Your task to perform on an android device: How much does a 3 bedroom apartment rent for in Miami? Image 0: 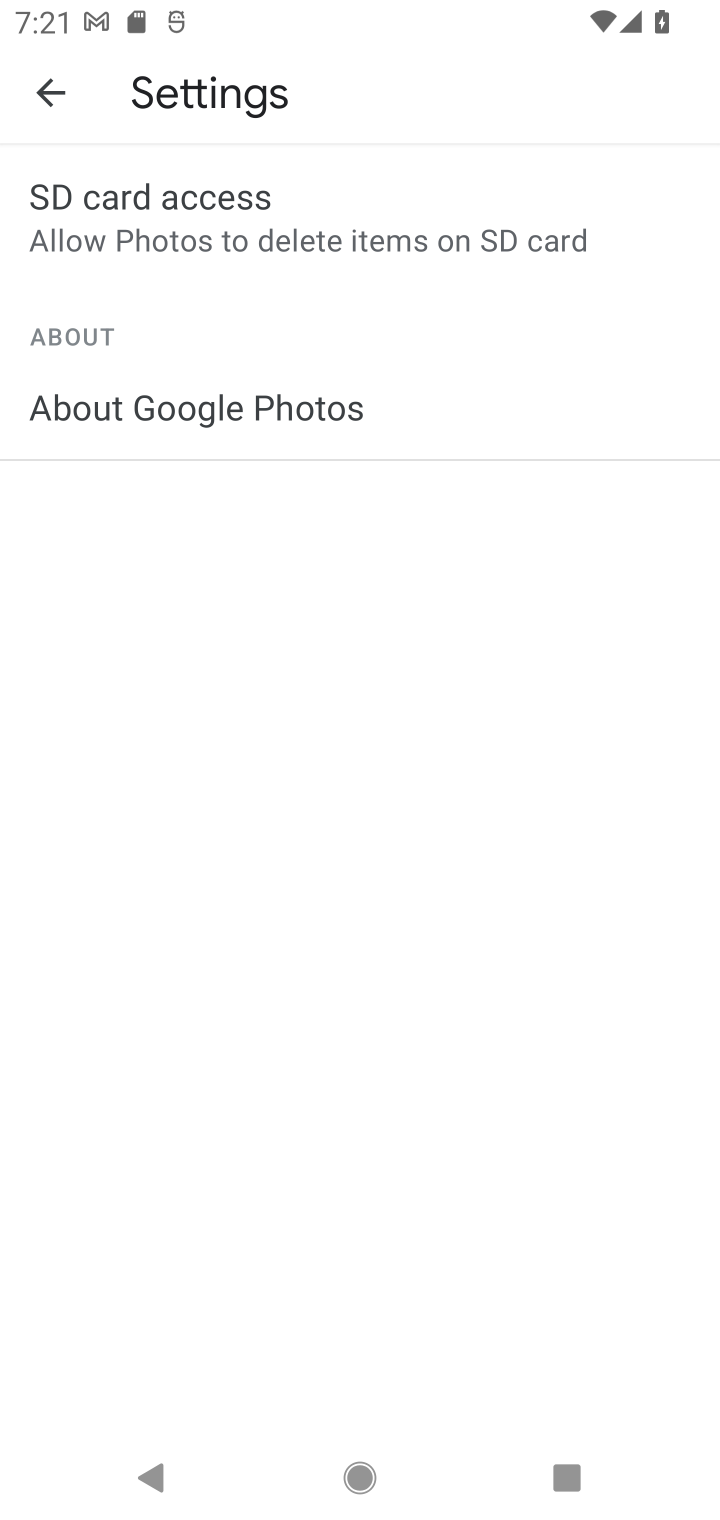
Step 0: press home button
Your task to perform on an android device: How much does a 3 bedroom apartment rent for in Miami? Image 1: 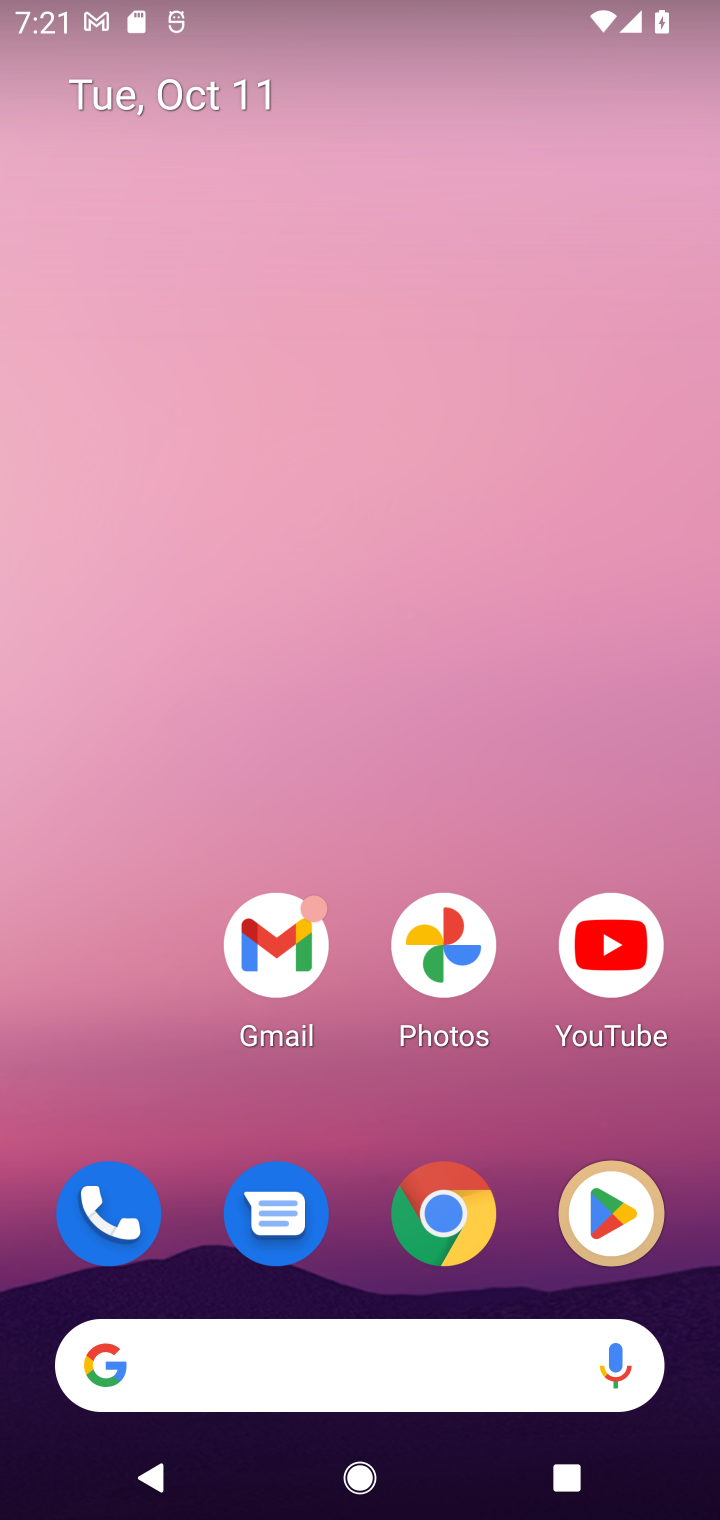
Step 1: drag from (334, 1329) to (457, 643)
Your task to perform on an android device: How much does a 3 bedroom apartment rent for in Miami? Image 2: 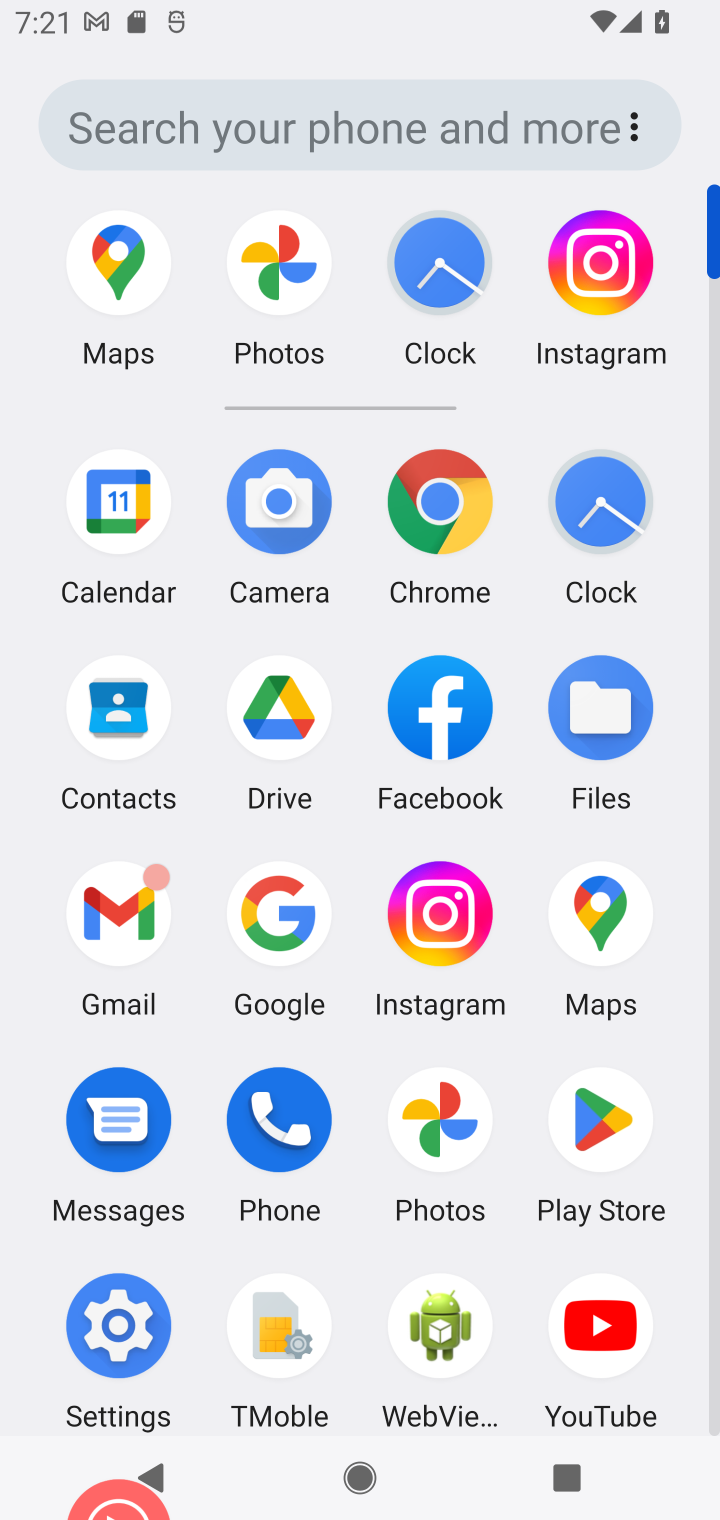
Step 2: click (303, 899)
Your task to perform on an android device: How much does a 3 bedroom apartment rent for in Miami? Image 3: 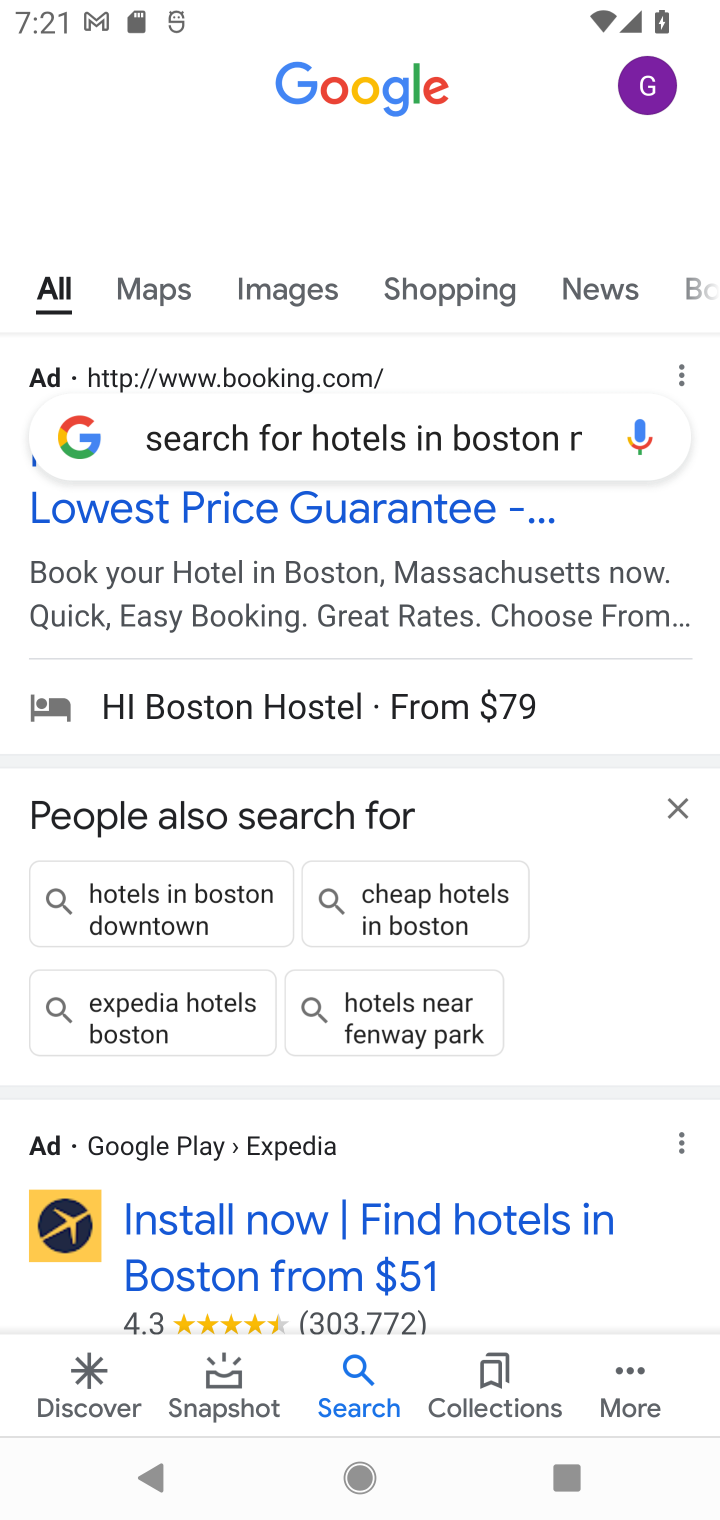
Step 3: click (339, 432)
Your task to perform on an android device: How much does a 3 bedroom apartment rent for in Miami? Image 4: 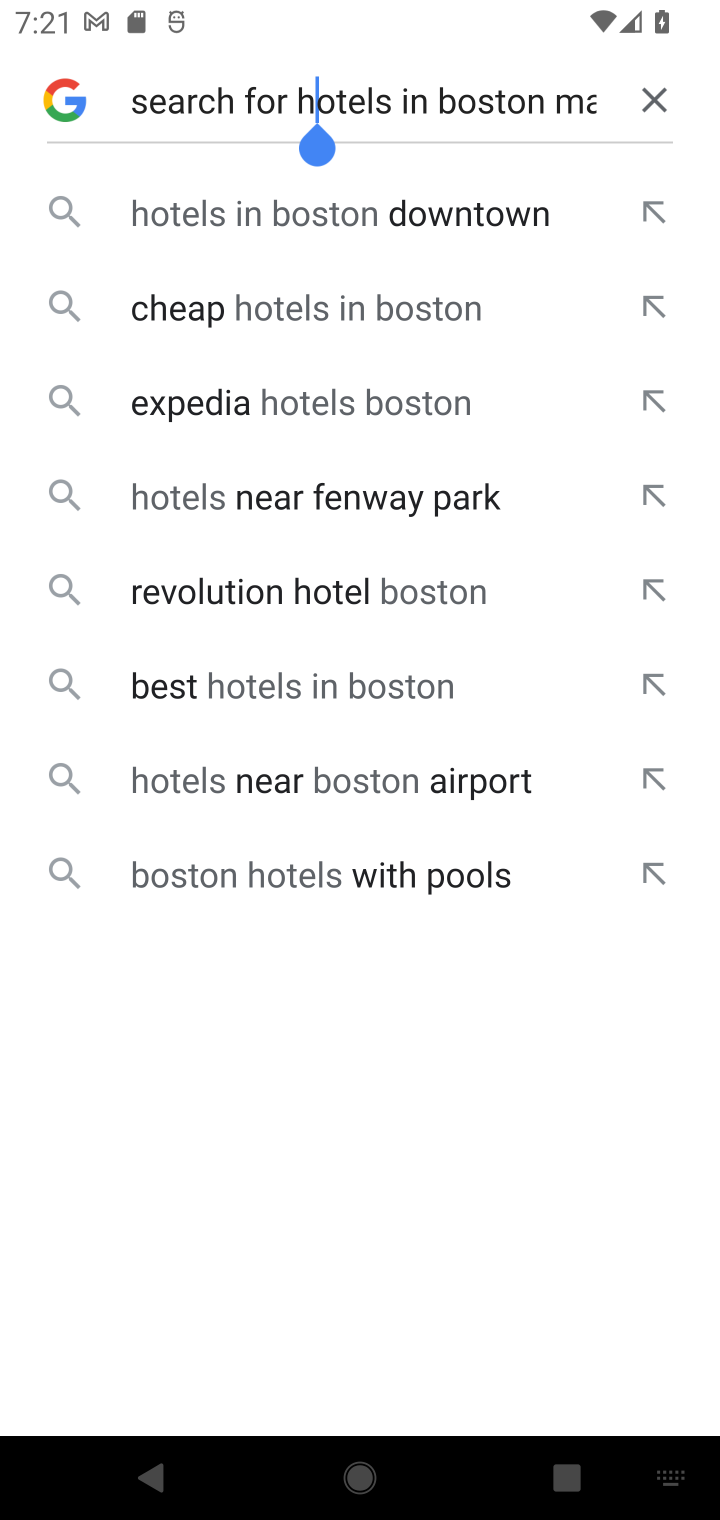
Step 4: click (655, 84)
Your task to perform on an android device: How much does a 3 bedroom apartment rent for in Miami? Image 5: 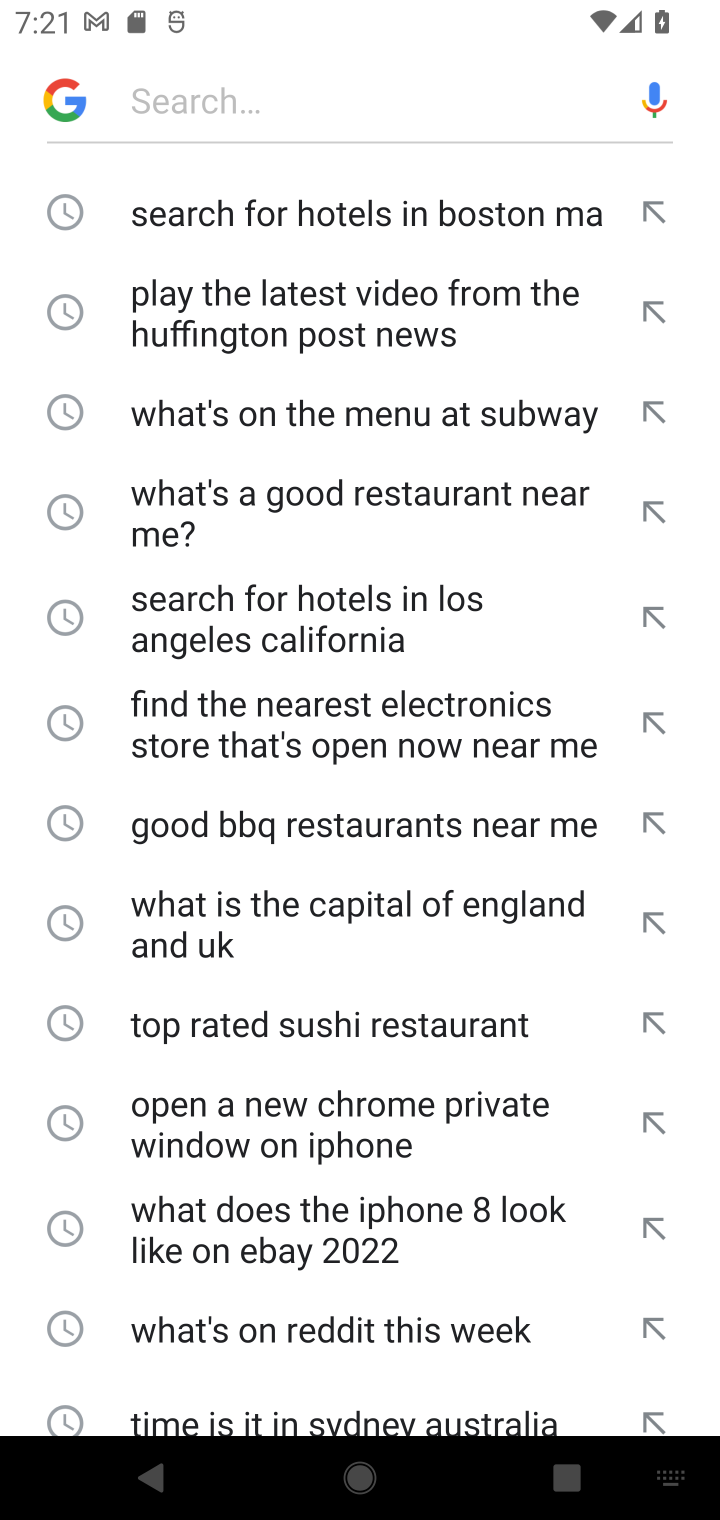
Step 5: click (222, 93)
Your task to perform on an android device: How much does a 3 bedroom apartment rent for in Miami? Image 6: 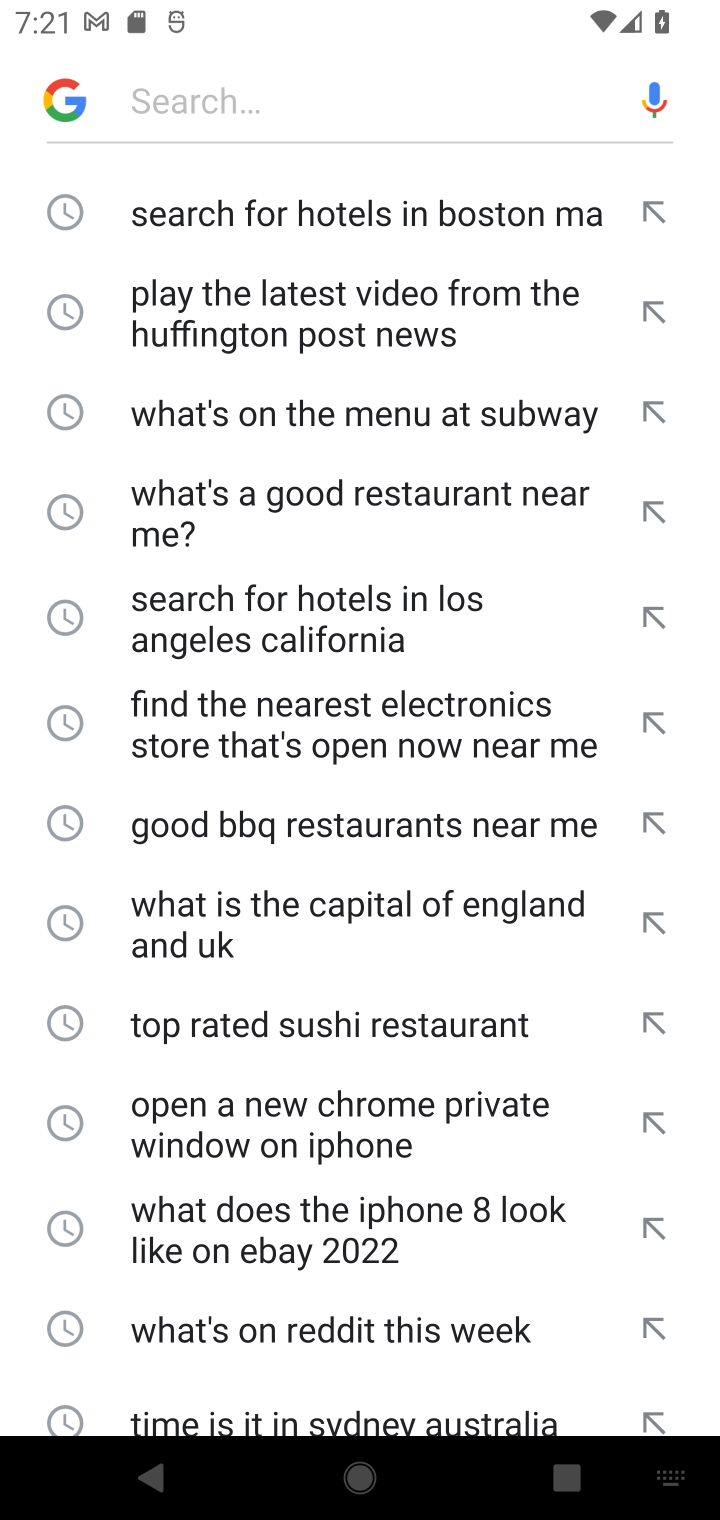
Step 6: type "How much does a 3 bedroom apartment rent for in Miami? "
Your task to perform on an android device: How much does a 3 bedroom apartment rent for in Miami? Image 7: 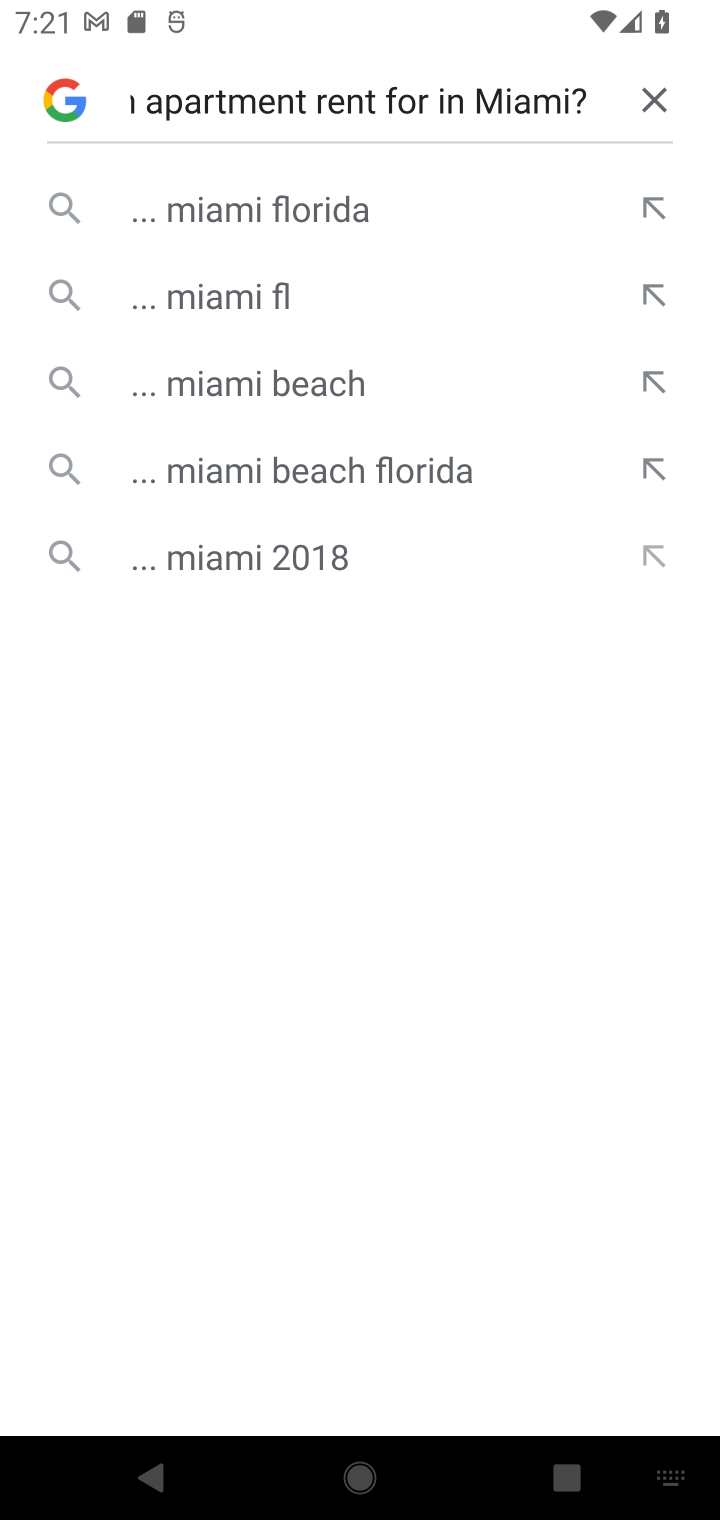
Step 7: click (308, 210)
Your task to perform on an android device: How much does a 3 bedroom apartment rent for in Miami? Image 8: 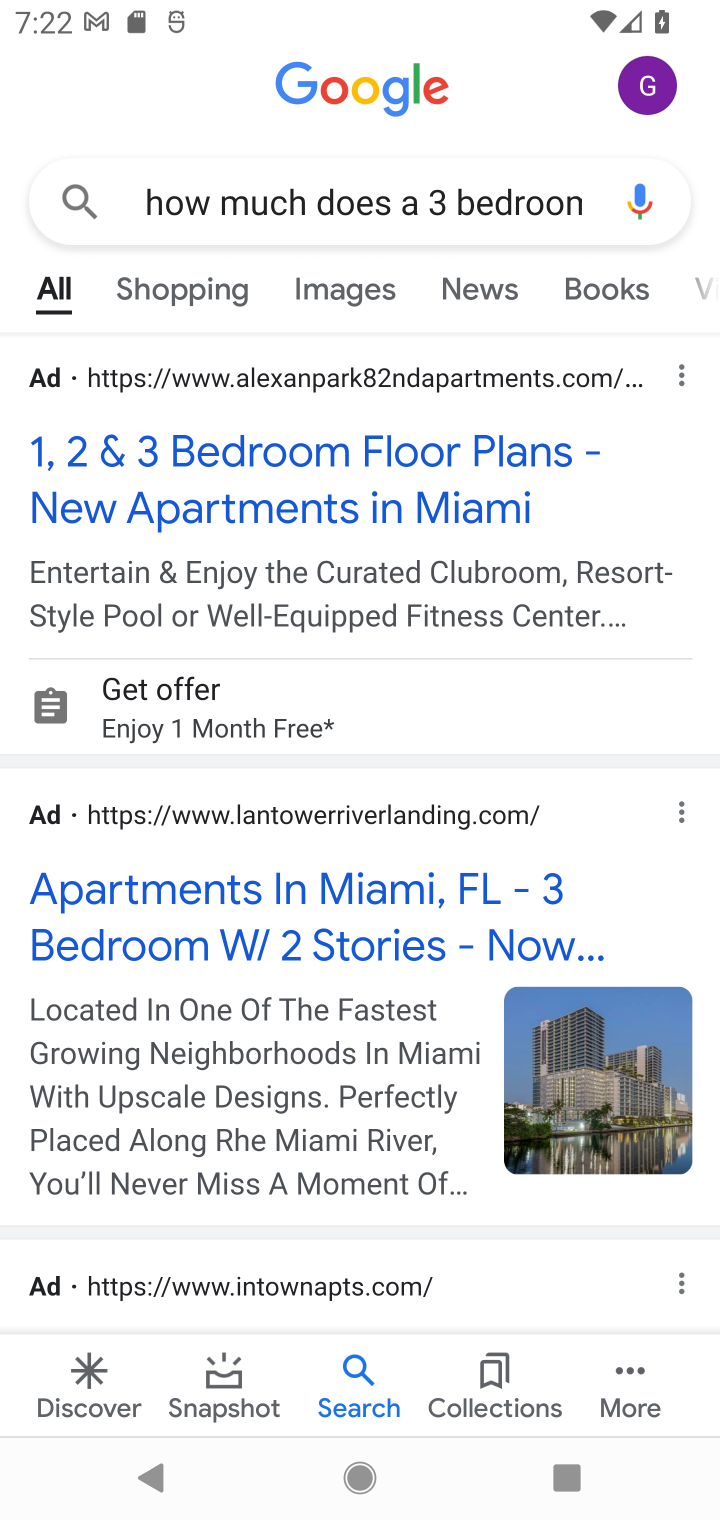
Step 8: click (313, 464)
Your task to perform on an android device: How much does a 3 bedroom apartment rent for in Miami? Image 9: 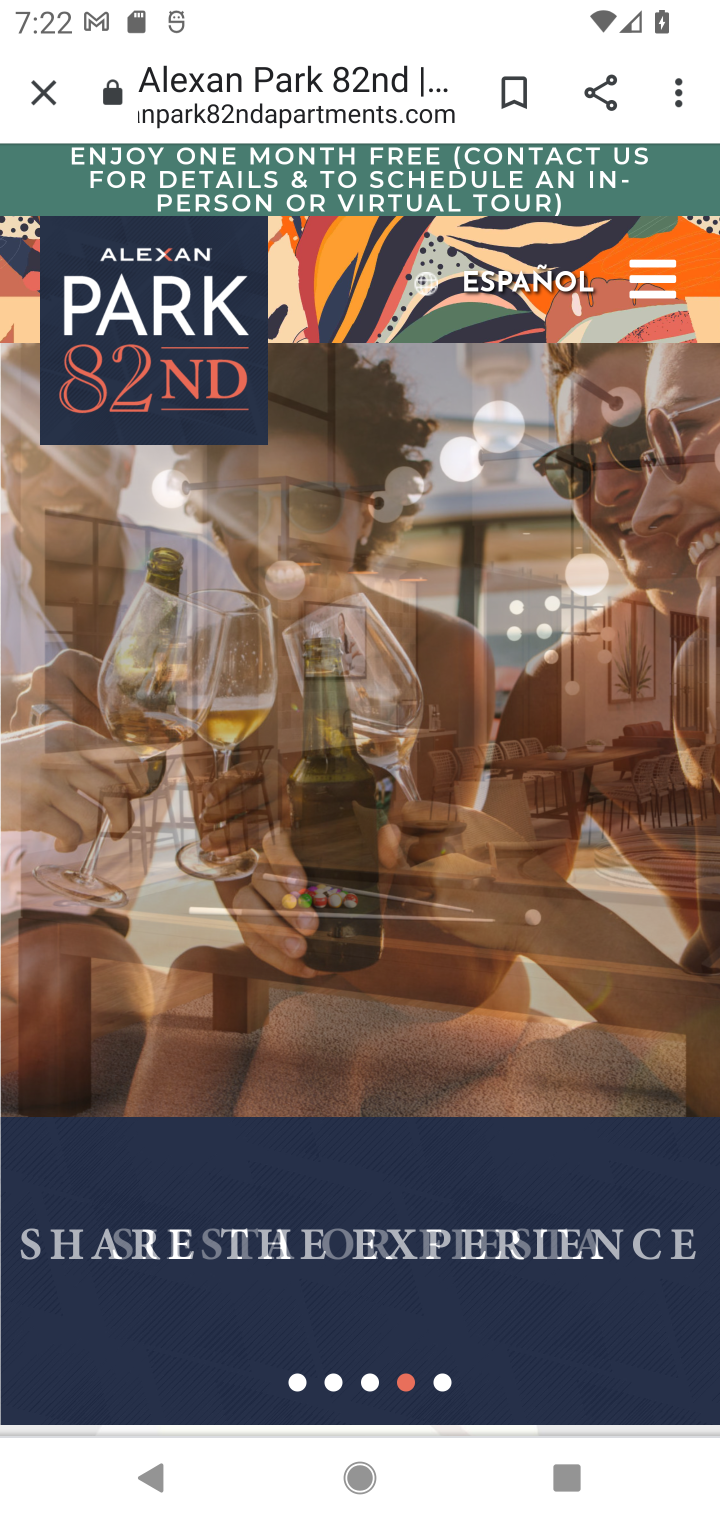
Step 9: drag from (471, 1189) to (437, 238)
Your task to perform on an android device: How much does a 3 bedroom apartment rent for in Miami? Image 10: 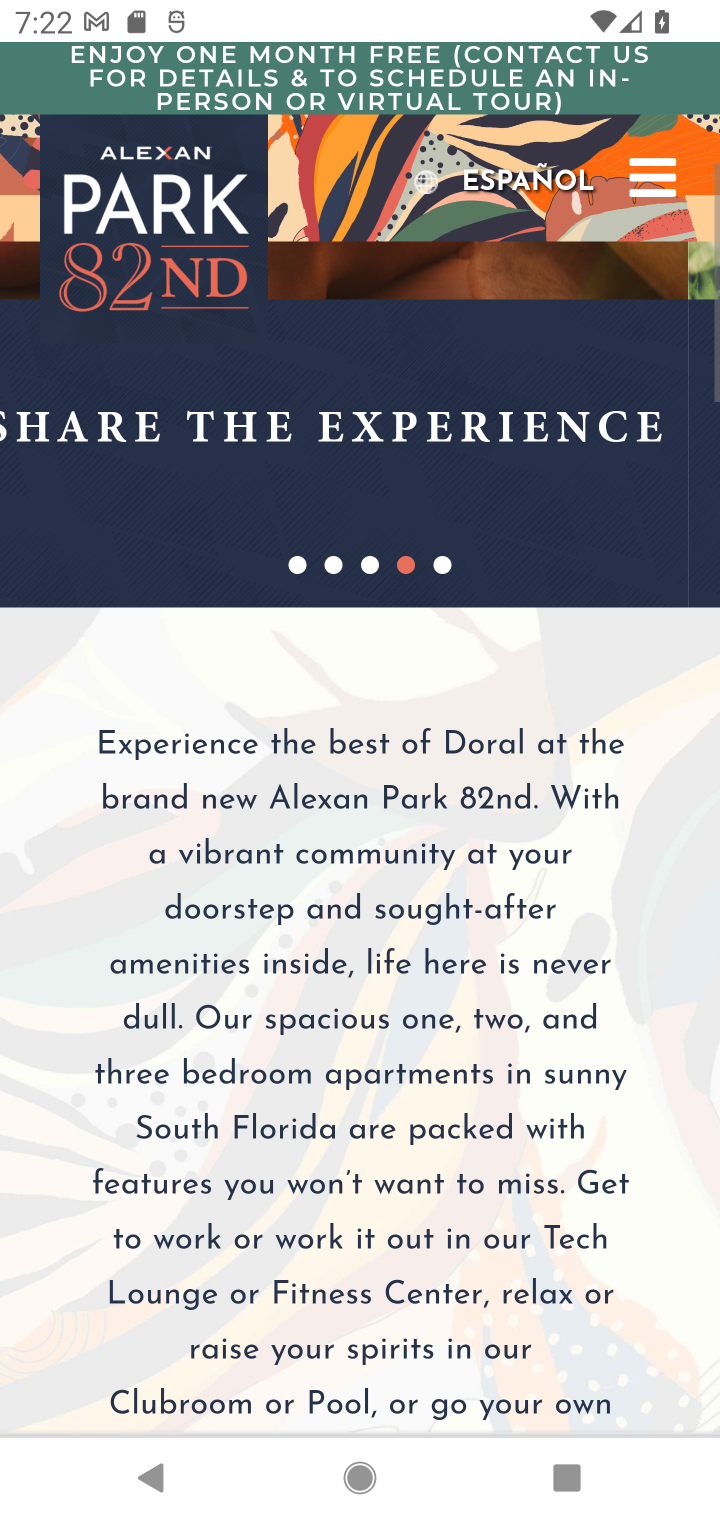
Step 10: drag from (517, 1287) to (4, 878)
Your task to perform on an android device: How much does a 3 bedroom apartment rent for in Miami? Image 11: 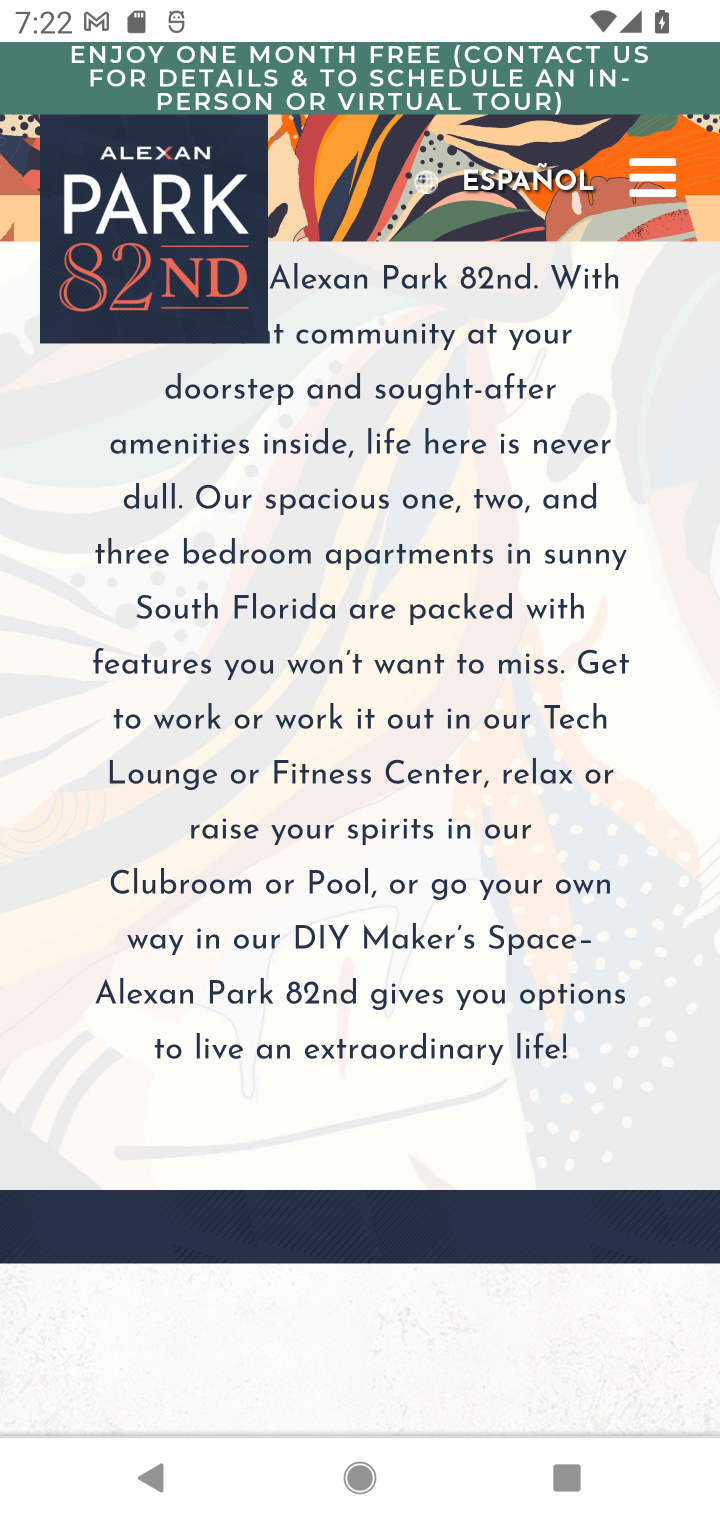
Step 11: press back button
Your task to perform on an android device: How much does a 3 bedroom apartment rent for in Miami? Image 12: 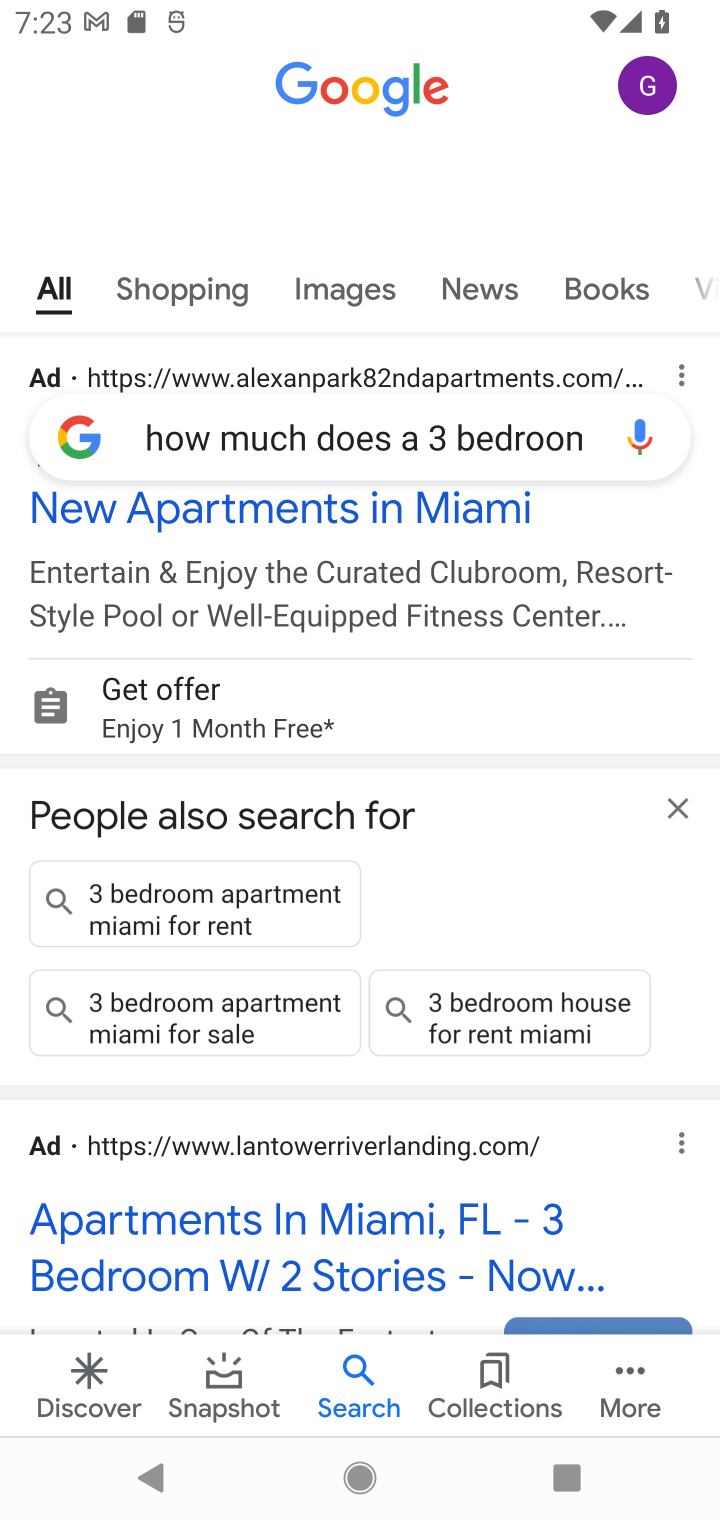
Step 12: click (312, 1227)
Your task to perform on an android device: How much does a 3 bedroom apartment rent for in Miami? Image 13: 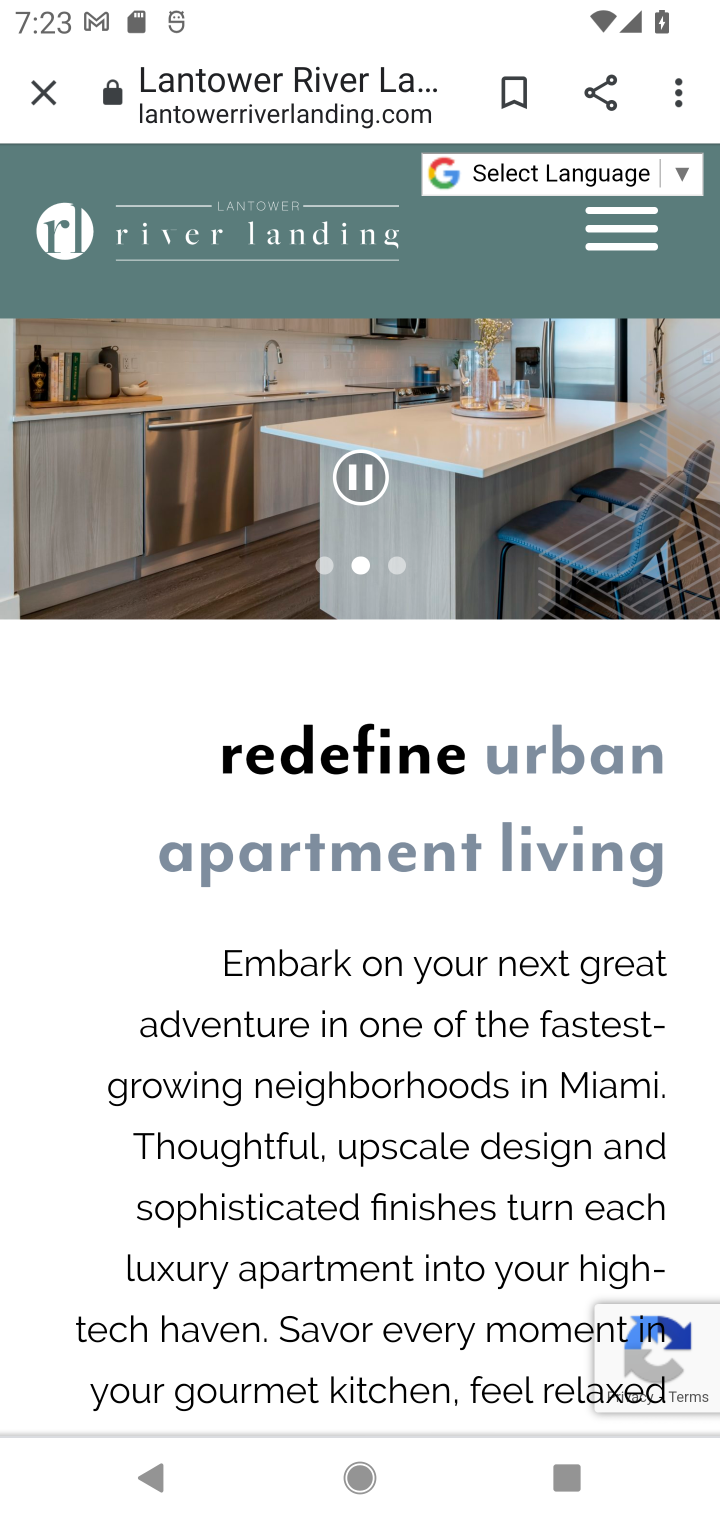
Step 13: task complete